Your task to perform on an android device: Search for sushi restaurants on Maps Image 0: 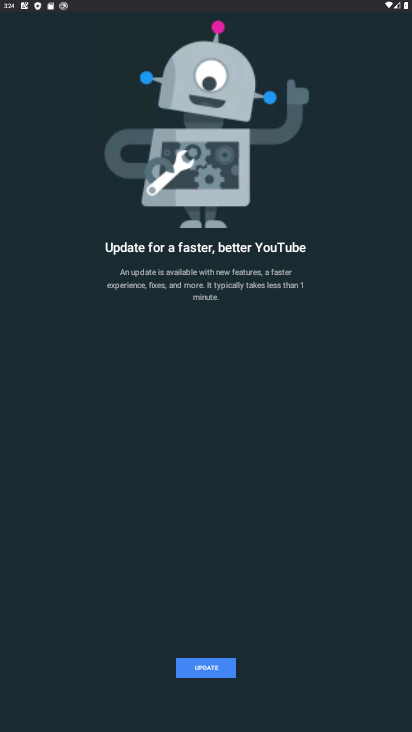
Step 0: press home button
Your task to perform on an android device: Search for sushi restaurants on Maps Image 1: 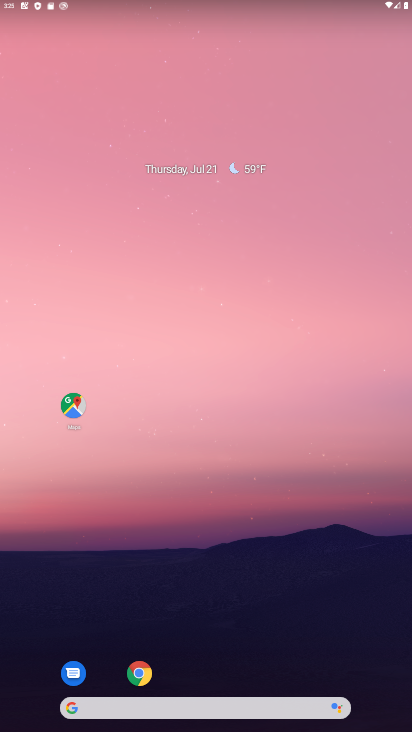
Step 1: click (74, 406)
Your task to perform on an android device: Search for sushi restaurants on Maps Image 2: 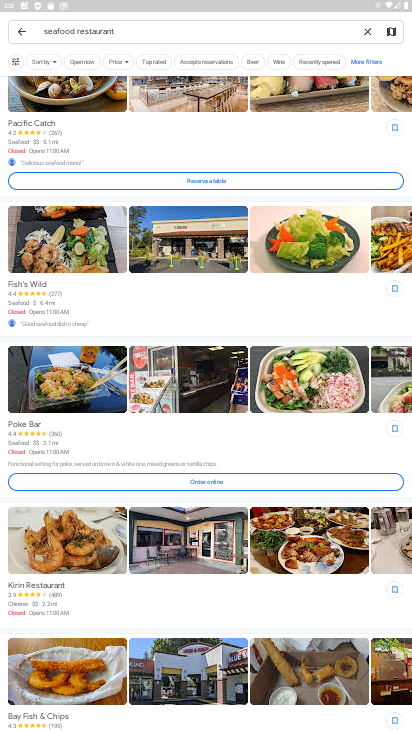
Step 2: click (154, 29)
Your task to perform on an android device: Search for sushi restaurants on Maps Image 3: 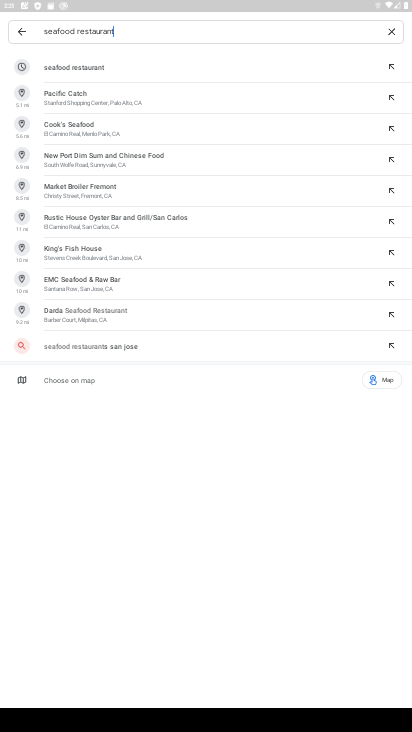
Step 3: click (392, 31)
Your task to perform on an android device: Search for sushi restaurants on Maps Image 4: 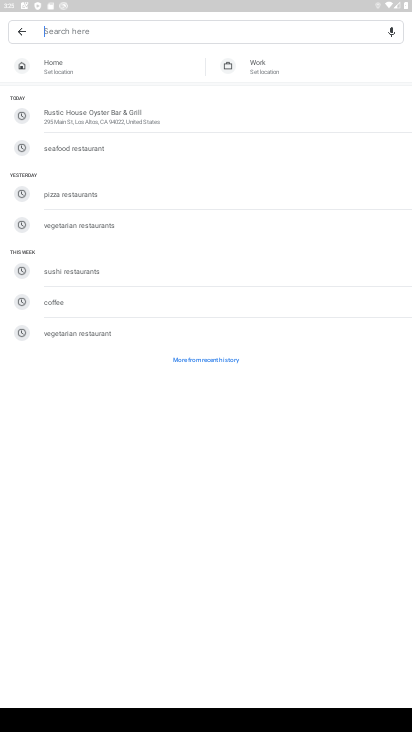
Step 4: type "sushi restaurants"
Your task to perform on an android device: Search for sushi restaurants on Maps Image 5: 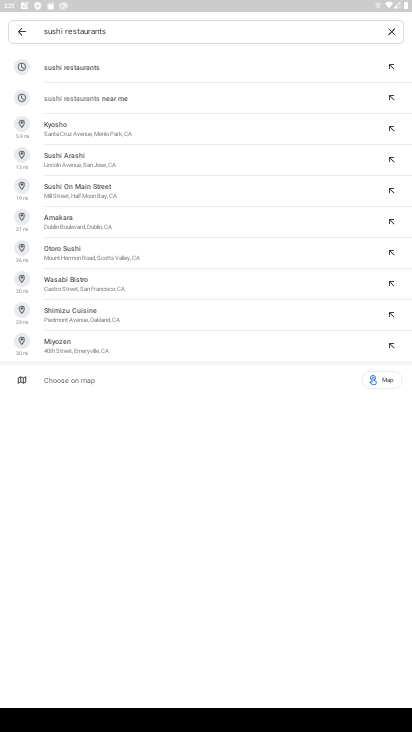
Step 5: click (68, 66)
Your task to perform on an android device: Search for sushi restaurants on Maps Image 6: 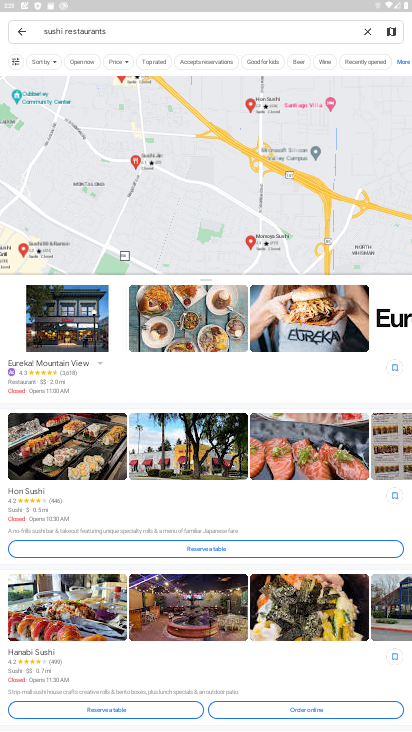
Step 6: task complete